Your task to perform on an android device: What is the news today? Image 0: 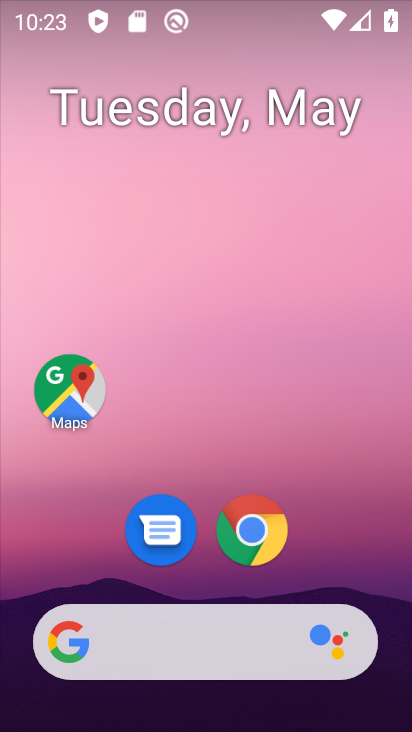
Step 0: click (247, 526)
Your task to perform on an android device: What is the news today? Image 1: 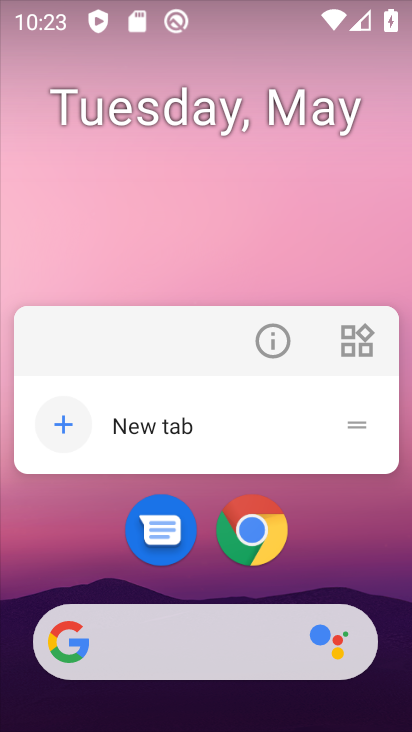
Step 1: click (256, 526)
Your task to perform on an android device: What is the news today? Image 2: 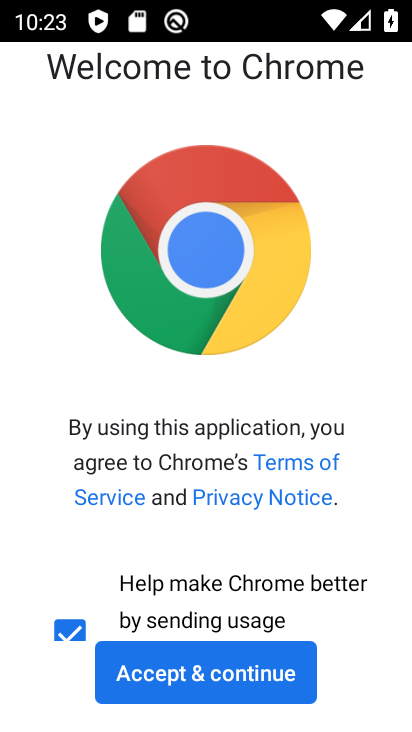
Step 2: click (274, 679)
Your task to perform on an android device: What is the news today? Image 3: 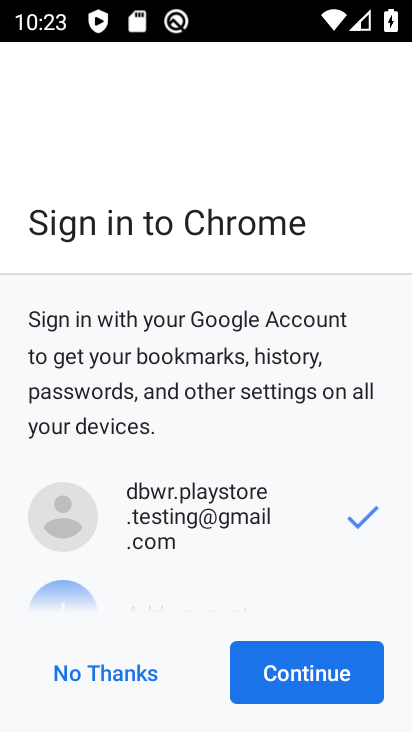
Step 3: click (278, 671)
Your task to perform on an android device: What is the news today? Image 4: 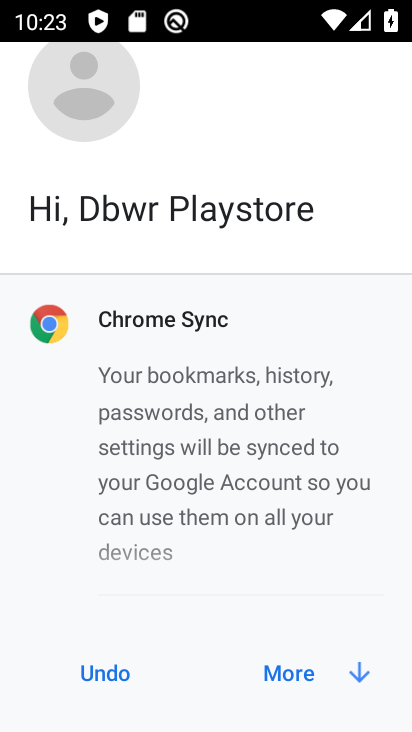
Step 4: click (290, 668)
Your task to perform on an android device: What is the news today? Image 5: 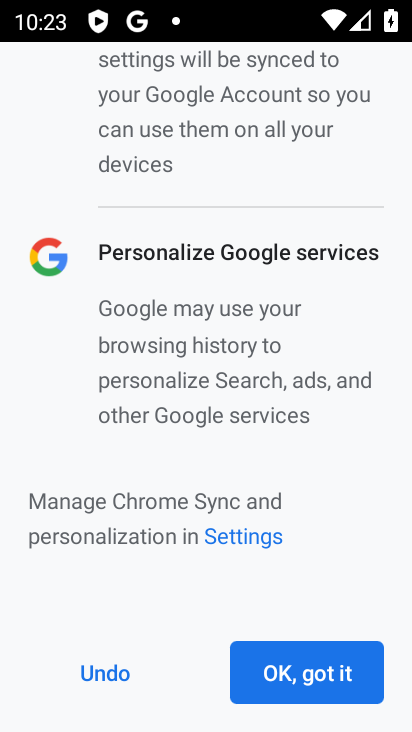
Step 5: click (343, 658)
Your task to perform on an android device: What is the news today? Image 6: 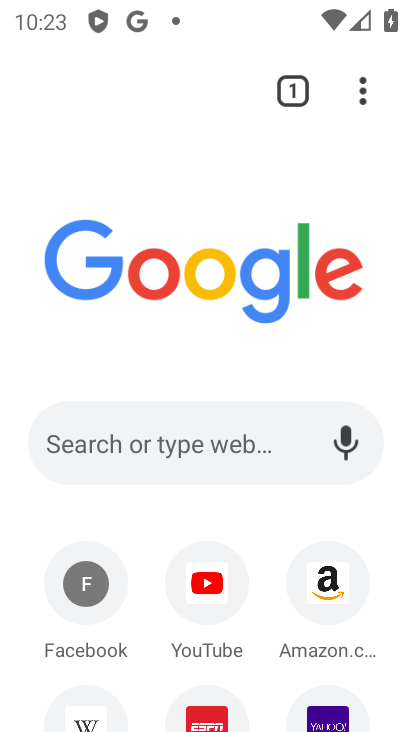
Step 6: click (229, 421)
Your task to perform on an android device: What is the news today? Image 7: 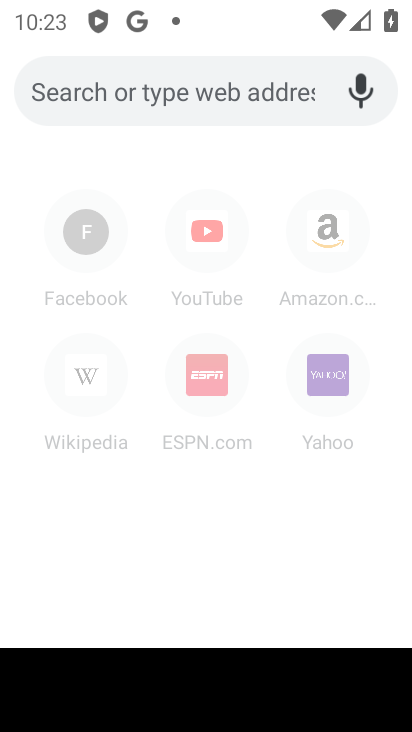
Step 7: type "news"
Your task to perform on an android device: What is the news today? Image 8: 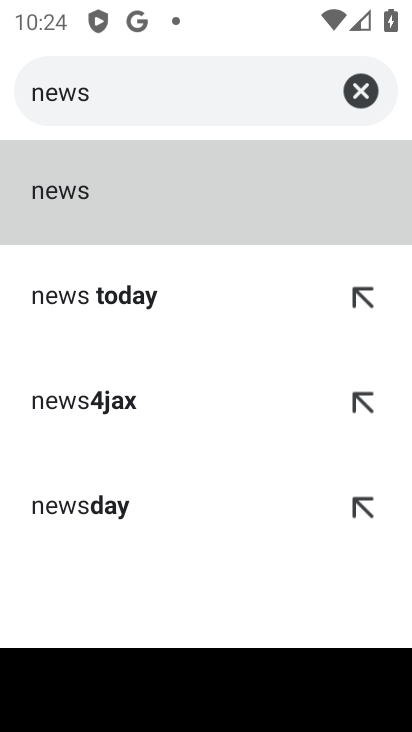
Step 8: click (95, 204)
Your task to perform on an android device: What is the news today? Image 9: 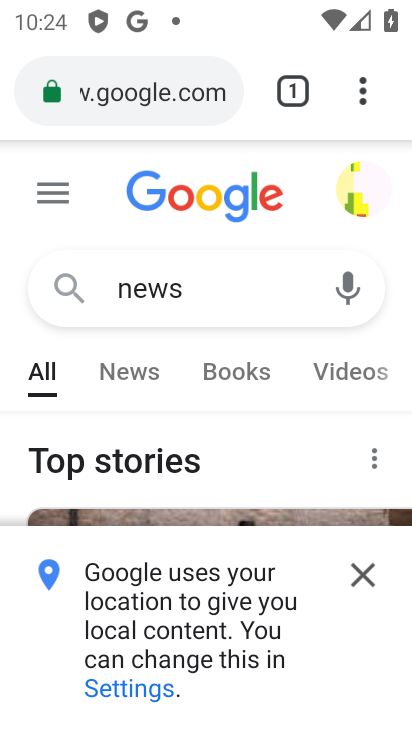
Step 9: click (148, 370)
Your task to perform on an android device: What is the news today? Image 10: 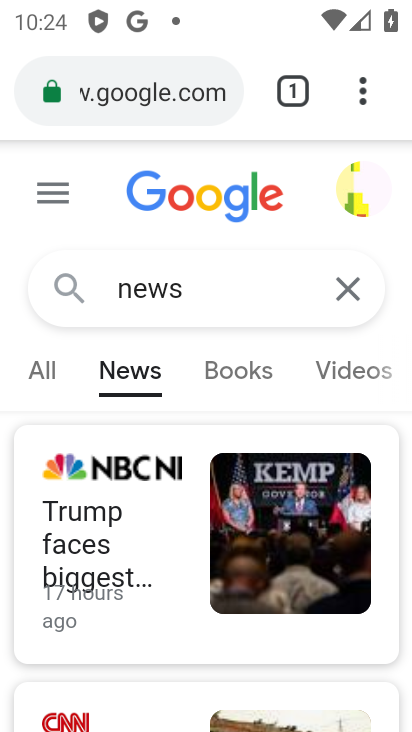
Step 10: task complete